Your task to perform on an android device: Search for pizza restaurants on Maps Image 0: 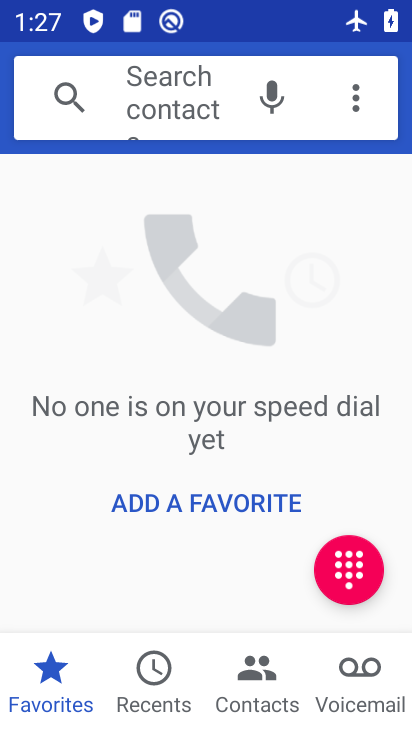
Step 0: press home button
Your task to perform on an android device: Search for pizza restaurants on Maps Image 1: 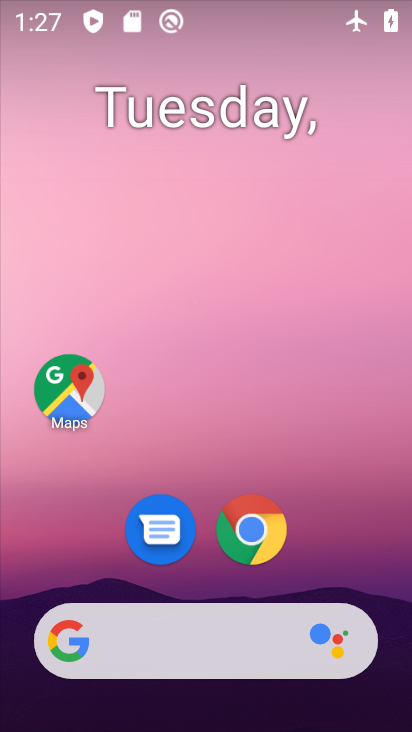
Step 1: drag from (382, 539) to (309, 140)
Your task to perform on an android device: Search for pizza restaurants on Maps Image 2: 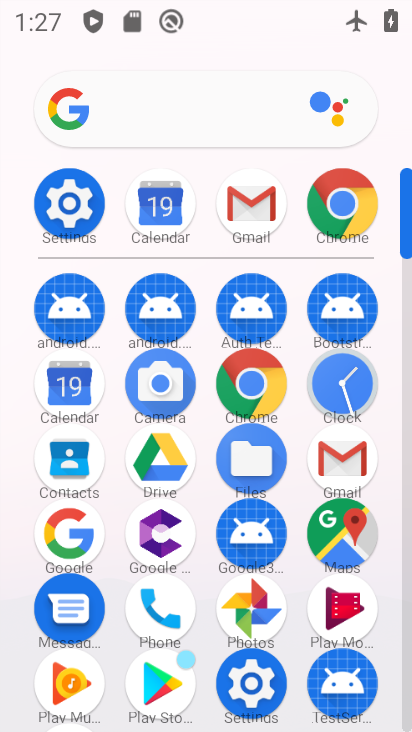
Step 2: click (356, 527)
Your task to perform on an android device: Search for pizza restaurants on Maps Image 3: 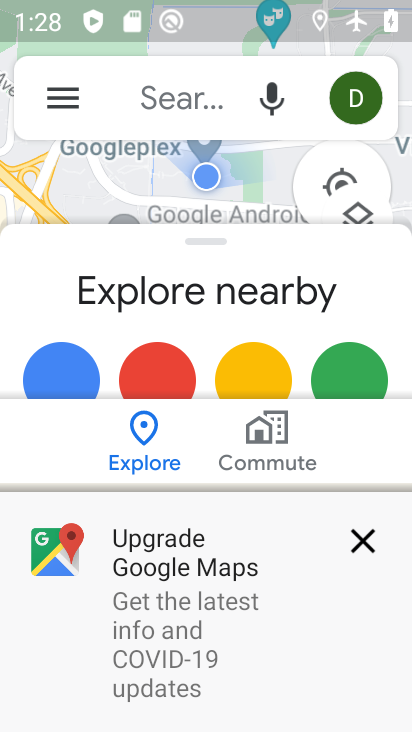
Step 3: click (179, 105)
Your task to perform on an android device: Search for pizza restaurants on Maps Image 4: 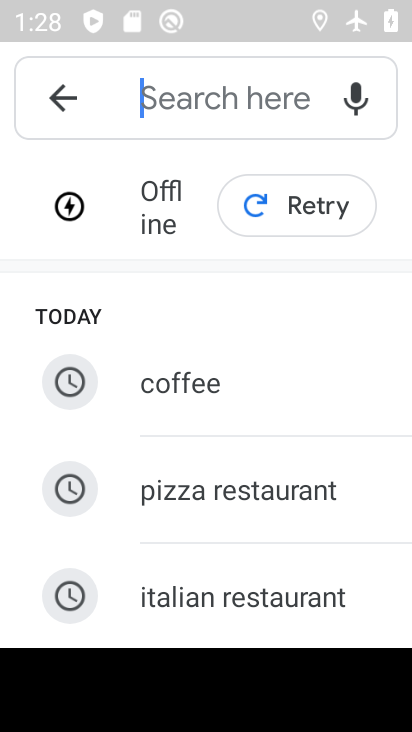
Step 4: click (226, 513)
Your task to perform on an android device: Search for pizza restaurants on Maps Image 5: 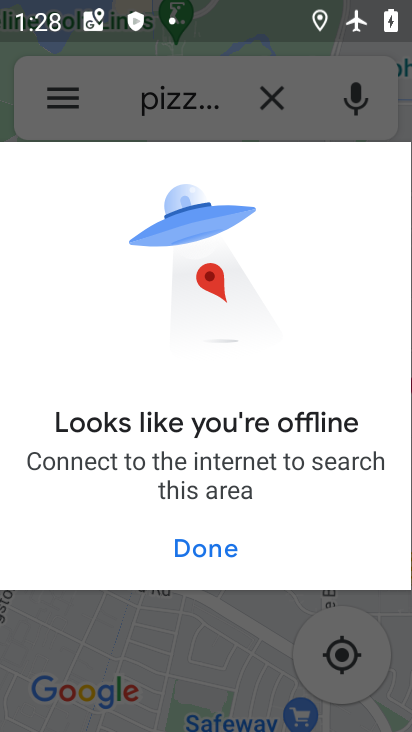
Step 5: task complete